Your task to perform on an android device: Search for Mexican restaurants on Maps Image 0: 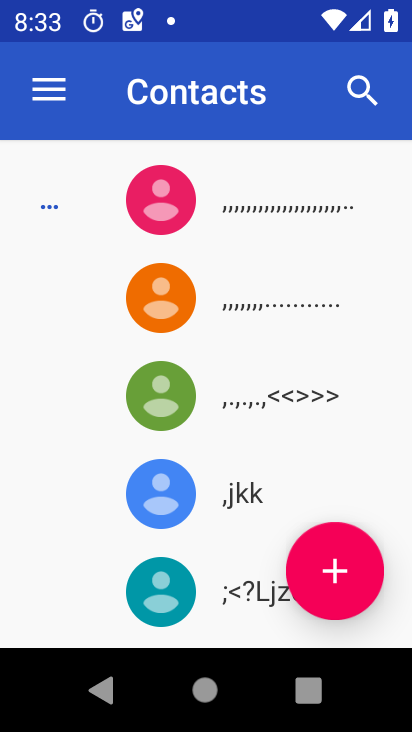
Step 0: press home button
Your task to perform on an android device: Search for Mexican restaurants on Maps Image 1: 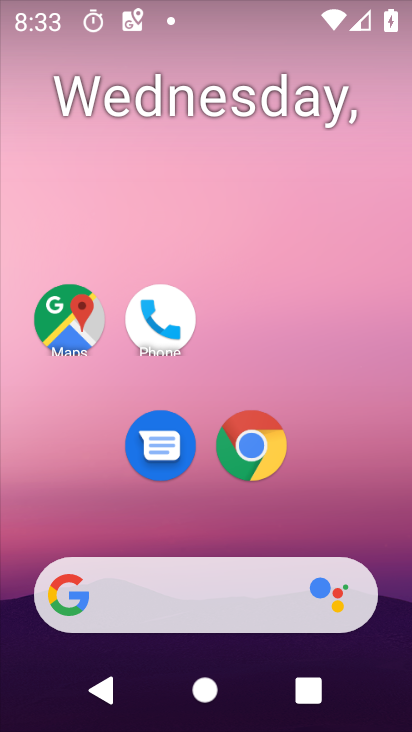
Step 1: click (54, 335)
Your task to perform on an android device: Search for Mexican restaurants on Maps Image 2: 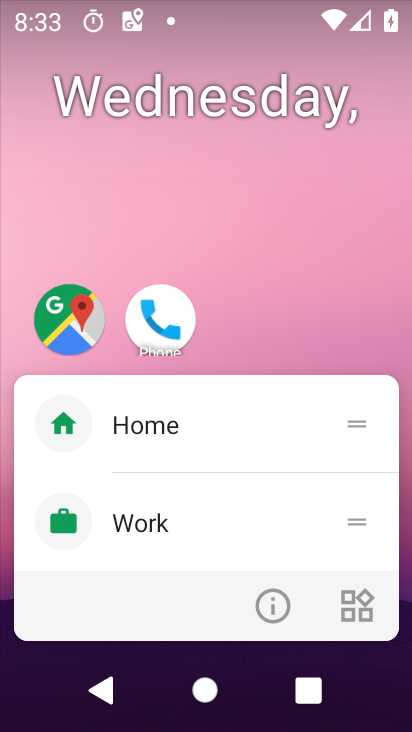
Step 2: click (69, 332)
Your task to perform on an android device: Search for Mexican restaurants on Maps Image 3: 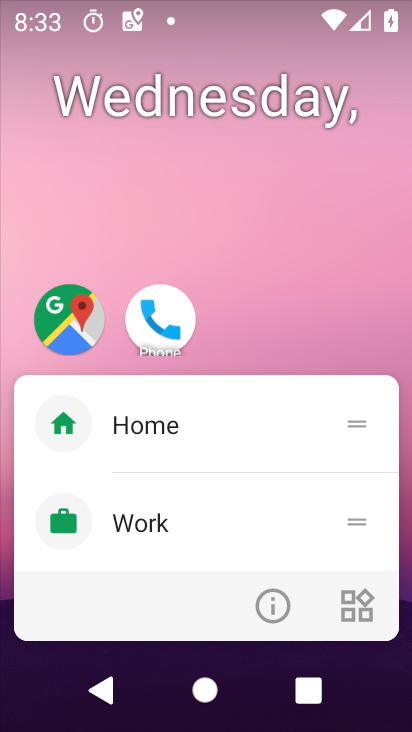
Step 3: click (87, 319)
Your task to perform on an android device: Search for Mexican restaurants on Maps Image 4: 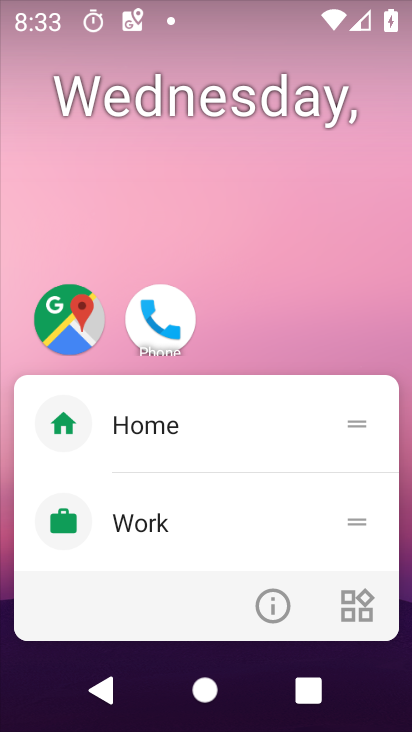
Step 4: click (70, 296)
Your task to perform on an android device: Search for Mexican restaurants on Maps Image 5: 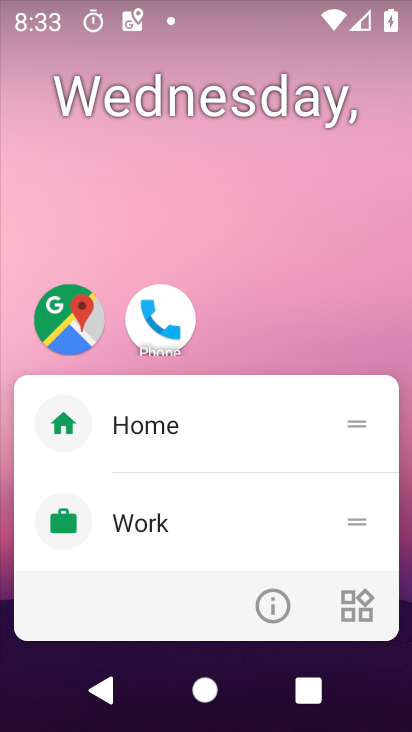
Step 5: click (63, 302)
Your task to perform on an android device: Search for Mexican restaurants on Maps Image 6: 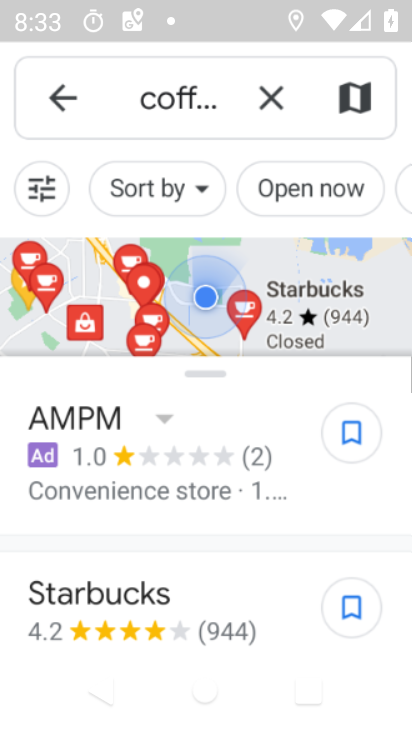
Step 6: click (267, 97)
Your task to perform on an android device: Search for Mexican restaurants on Maps Image 7: 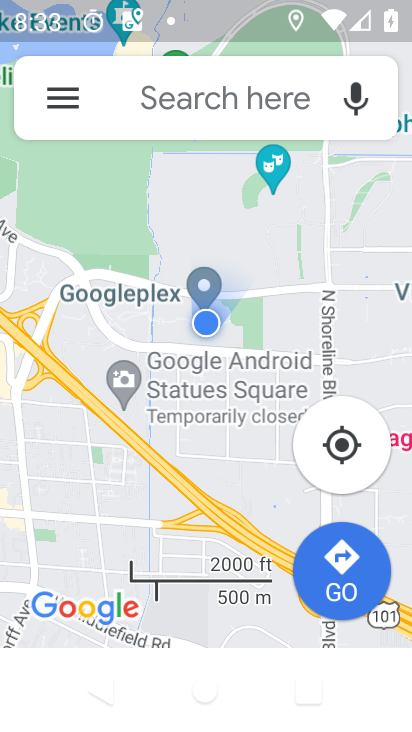
Step 7: click (226, 108)
Your task to perform on an android device: Search for Mexican restaurants on Maps Image 8: 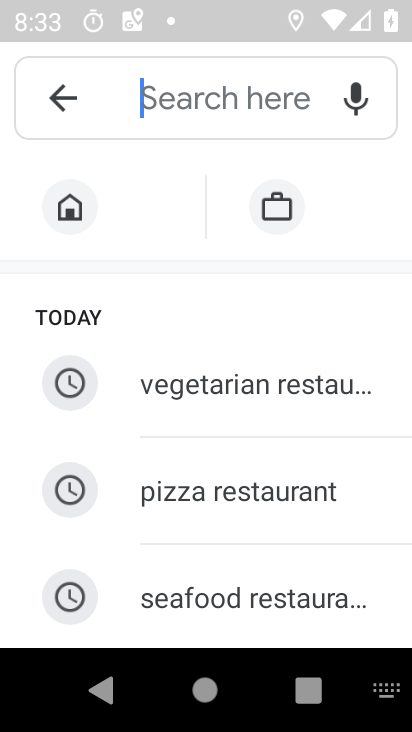
Step 8: type "mexican restaurants"
Your task to perform on an android device: Search for Mexican restaurants on Maps Image 9: 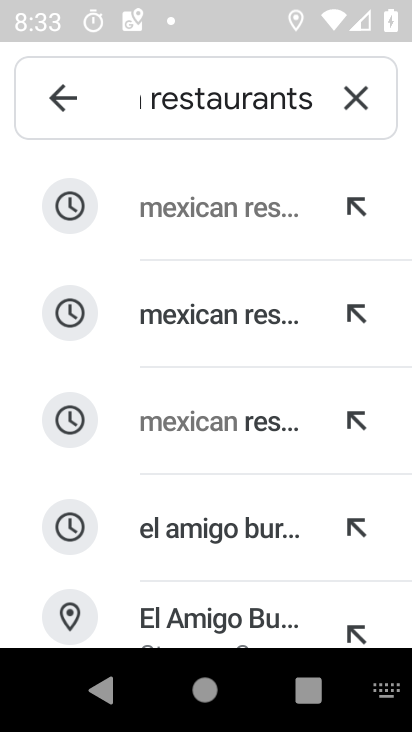
Step 9: click (232, 211)
Your task to perform on an android device: Search for Mexican restaurants on Maps Image 10: 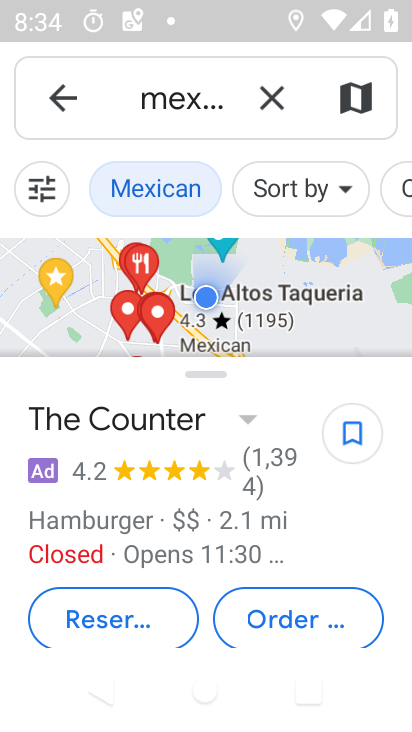
Step 10: task complete